Your task to perform on an android device: open sync settings in chrome Image 0: 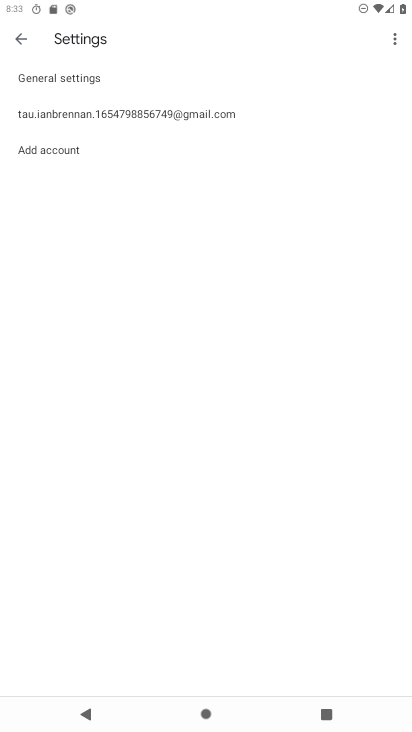
Step 0: press home button
Your task to perform on an android device: open sync settings in chrome Image 1: 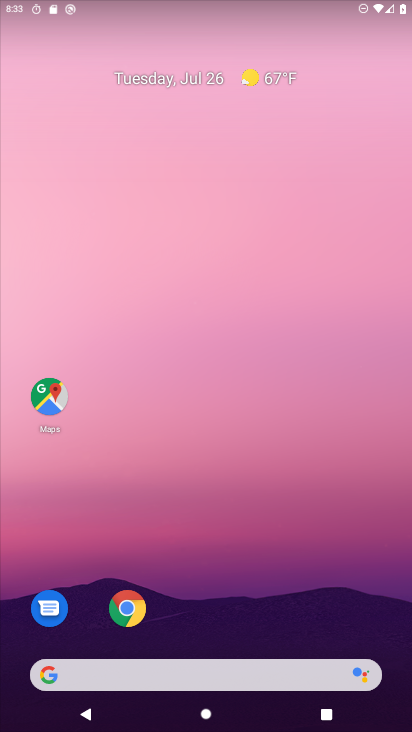
Step 1: click (131, 611)
Your task to perform on an android device: open sync settings in chrome Image 2: 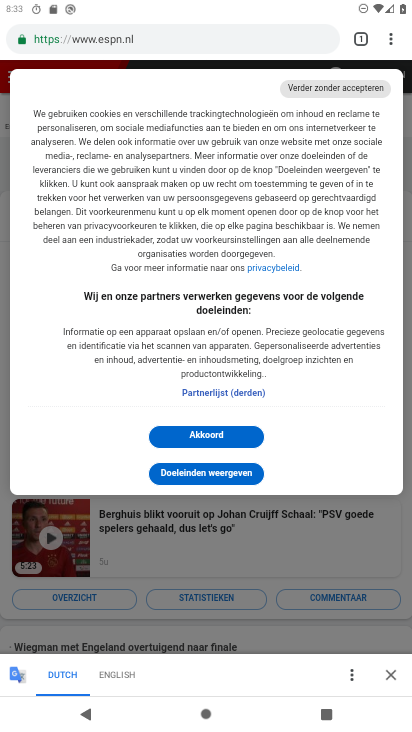
Step 2: click (390, 36)
Your task to perform on an android device: open sync settings in chrome Image 3: 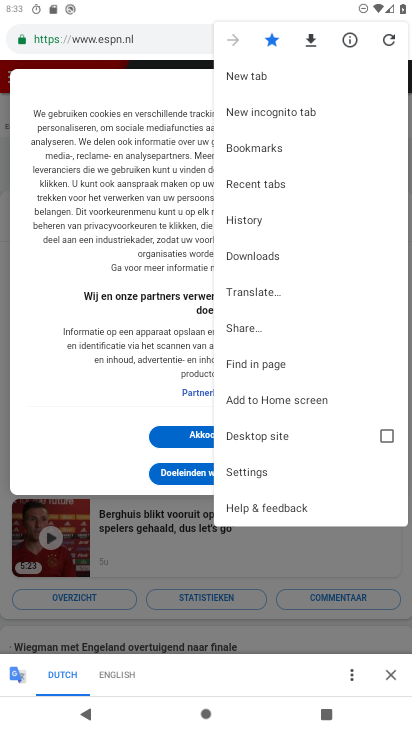
Step 3: click (263, 468)
Your task to perform on an android device: open sync settings in chrome Image 4: 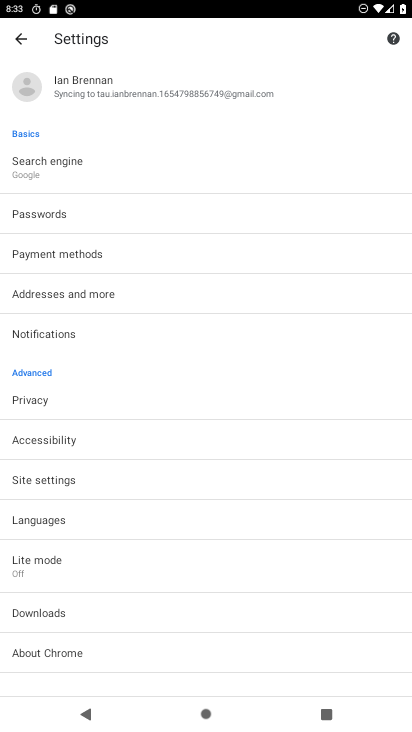
Step 4: click (206, 102)
Your task to perform on an android device: open sync settings in chrome Image 5: 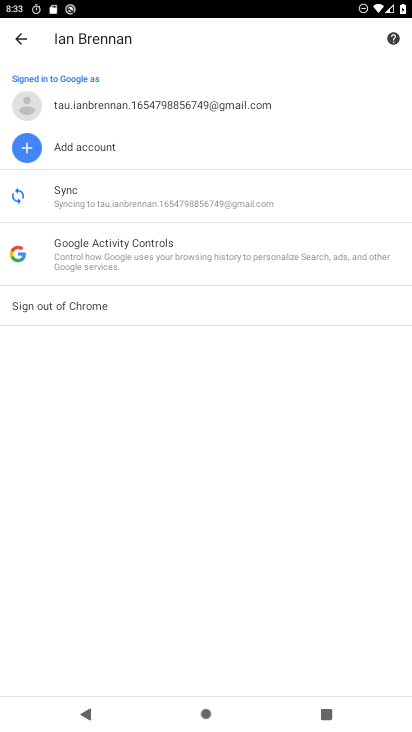
Step 5: click (143, 204)
Your task to perform on an android device: open sync settings in chrome Image 6: 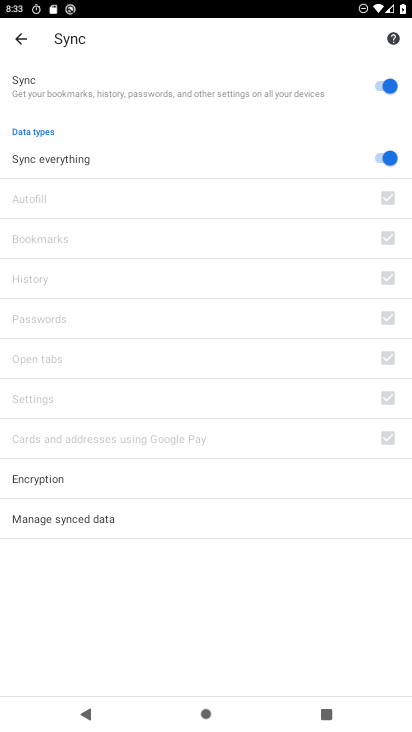
Step 6: task complete